Your task to perform on an android device: Set an alarm for 6pm Image 0: 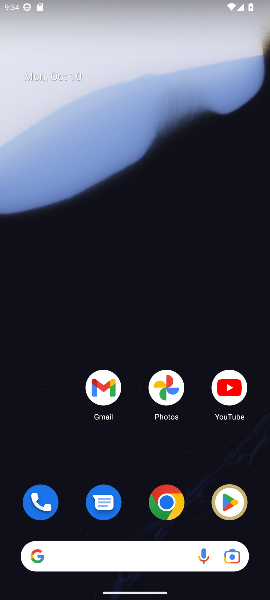
Step 0: click (166, 499)
Your task to perform on an android device: Set an alarm for 6pm Image 1: 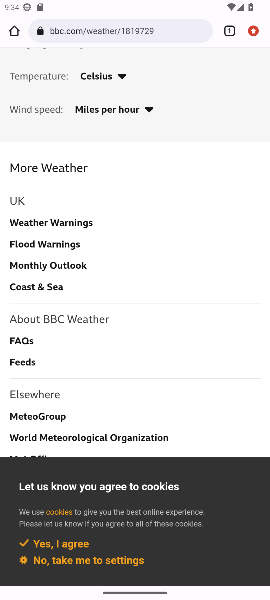
Step 1: press home button
Your task to perform on an android device: Set an alarm for 6pm Image 2: 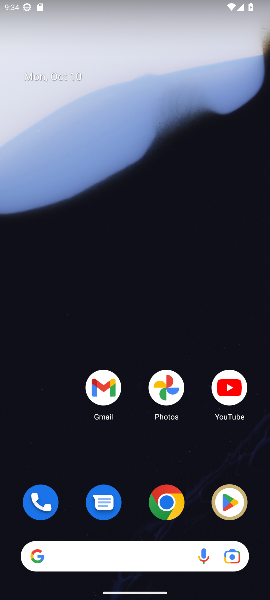
Step 2: drag from (142, 532) to (155, 44)
Your task to perform on an android device: Set an alarm for 6pm Image 3: 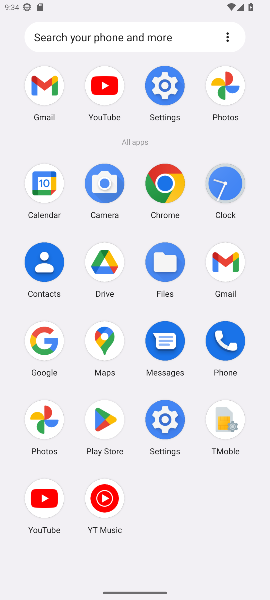
Step 3: click (235, 196)
Your task to perform on an android device: Set an alarm for 6pm Image 4: 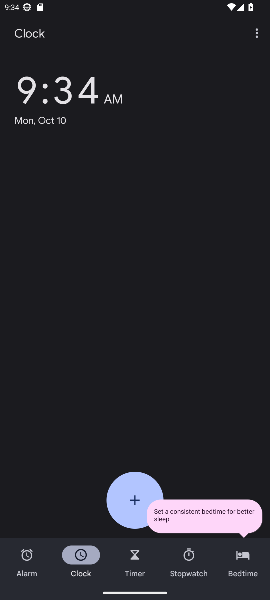
Step 4: click (21, 559)
Your task to perform on an android device: Set an alarm for 6pm Image 5: 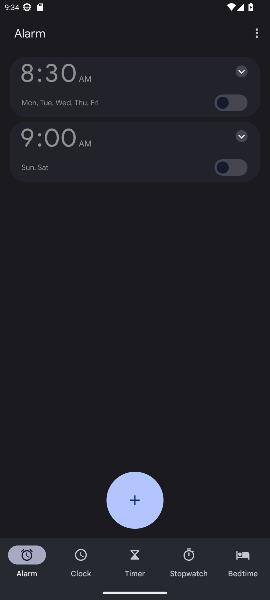
Step 5: click (131, 493)
Your task to perform on an android device: Set an alarm for 6pm Image 6: 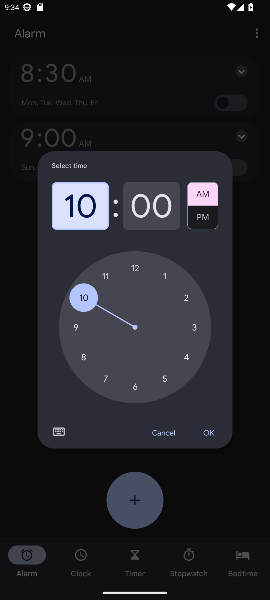
Step 6: click (198, 214)
Your task to perform on an android device: Set an alarm for 6pm Image 7: 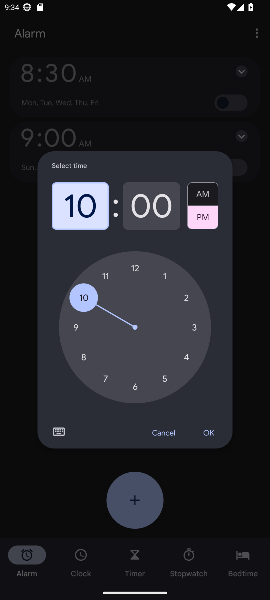
Step 7: click (138, 387)
Your task to perform on an android device: Set an alarm for 6pm Image 8: 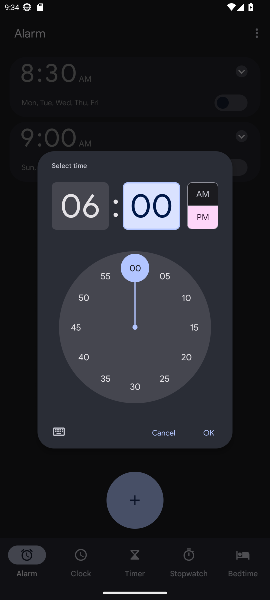
Step 8: click (209, 433)
Your task to perform on an android device: Set an alarm for 6pm Image 9: 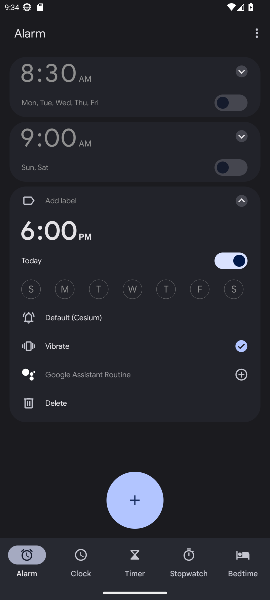
Step 9: click (221, 454)
Your task to perform on an android device: Set an alarm for 6pm Image 10: 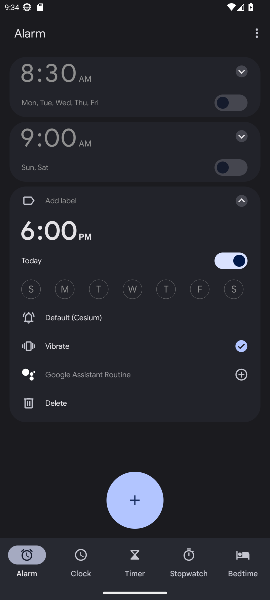
Step 10: click (77, 554)
Your task to perform on an android device: Set an alarm for 6pm Image 11: 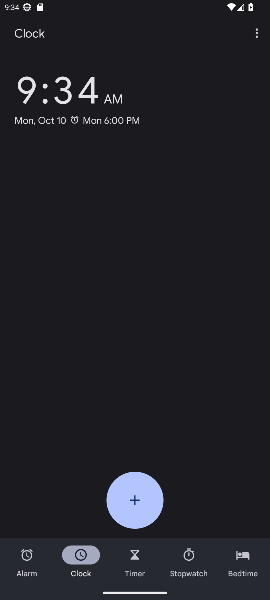
Step 11: click (134, 550)
Your task to perform on an android device: Set an alarm for 6pm Image 12: 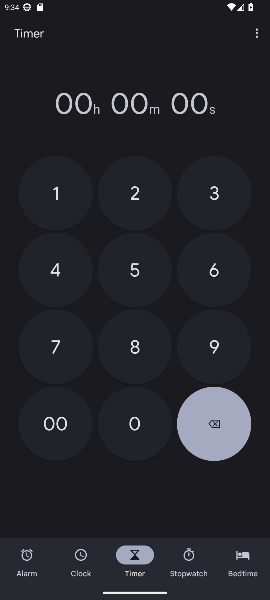
Step 12: click (177, 559)
Your task to perform on an android device: Set an alarm for 6pm Image 13: 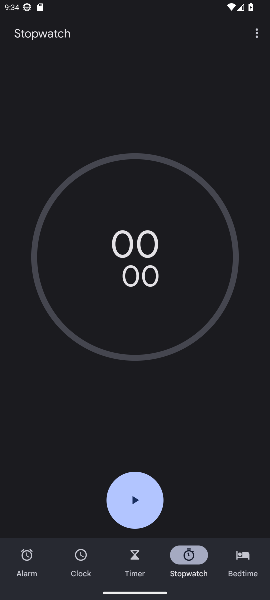
Step 13: click (238, 554)
Your task to perform on an android device: Set an alarm for 6pm Image 14: 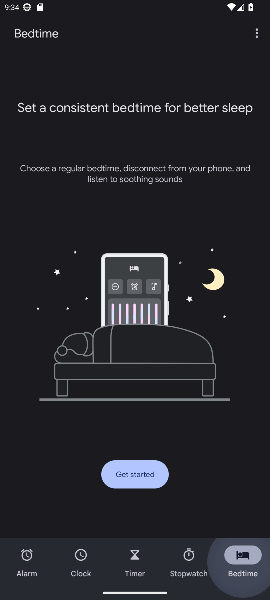
Step 14: click (27, 558)
Your task to perform on an android device: Set an alarm for 6pm Image 15: 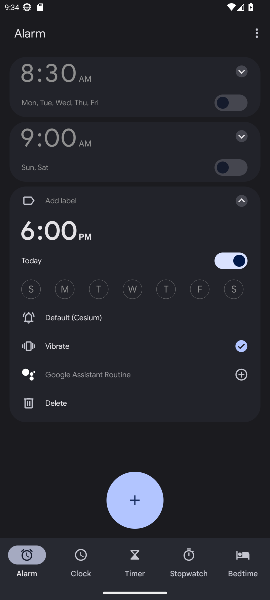
Step 15: click (221, 263)
Your task to perform on an android device: Set an alarm for 6pm Image 16: 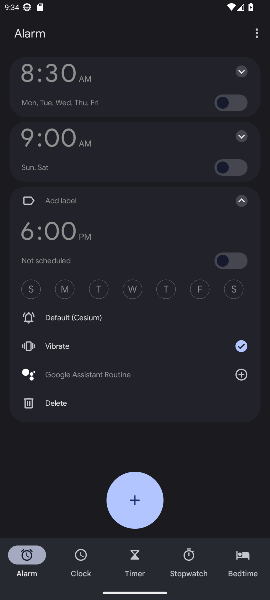
Step 16: click (231, 260)
Your task to perform on an android device: Set an alarm for 6pm Image 17: 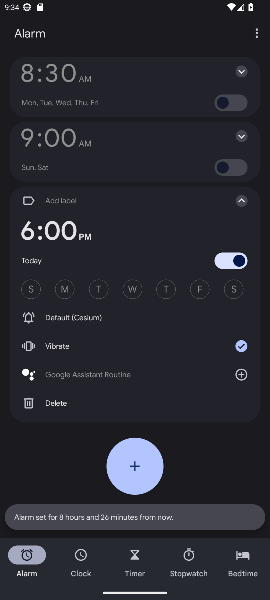
Step 17: click (32, 287)
Your task to perform on an android device: Set an alarm for 6pm Image 18: 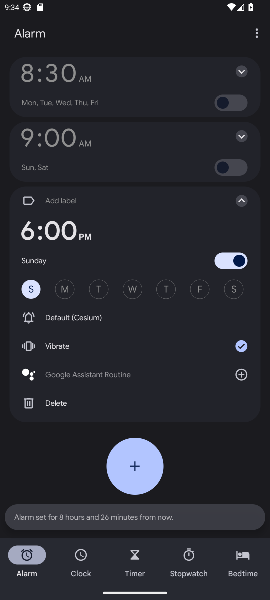
Step 18: click (65, 291)
Your task to perform on an android device: Set an alarm for 6pm Image 19: 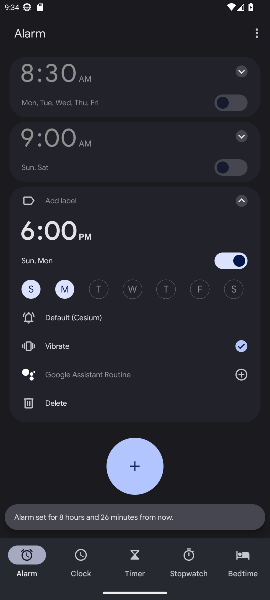
Step 19: click (97, 287)
Your task to perform on an android device: Set an alarm for 6pm Image 20: 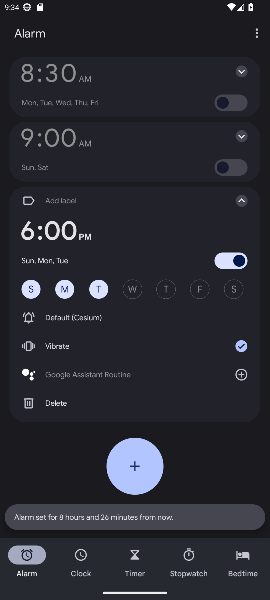
Step 20: click (137, 291)
Your task to perform on an android device: Set an alarm for 6pm Image 21: 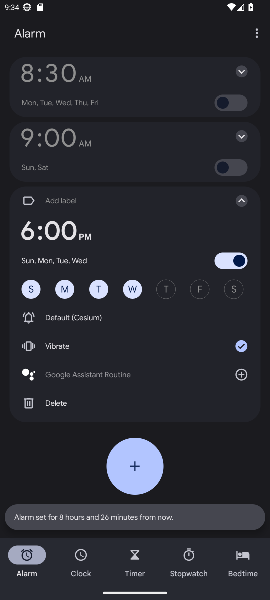
Step 21: click (174, 294)
Your task to perform on an android device: Set an alarm for 6pm Image 22: 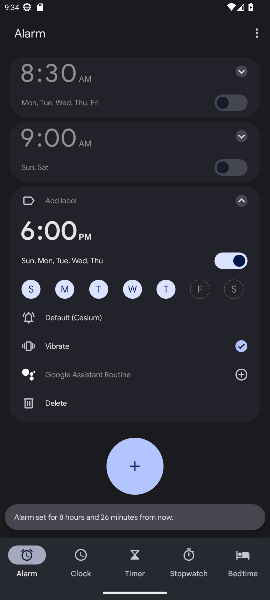
Step 22: click (195, 292)
Your task to perform on an android device: Set an alarm for 6pm Image 23: 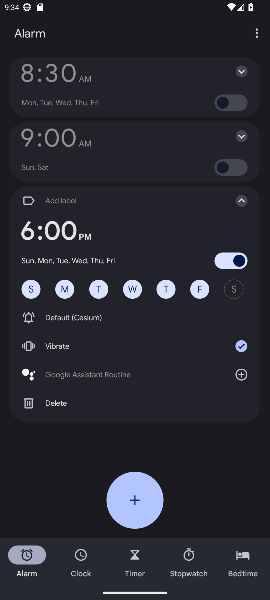
Step 23: click (195, 292)
Your task to perform on an android device: Set an alarm for 6pm Image 24: 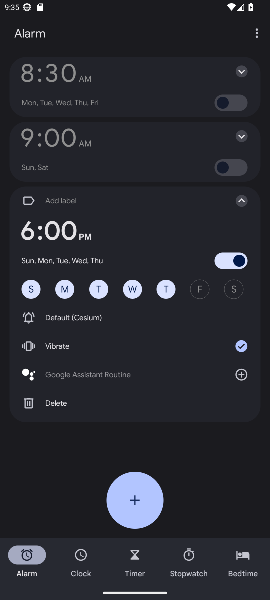
Step 24: click (242, 292)
Your task to perform on an android device: Set an alarm for 6pm Image 25: 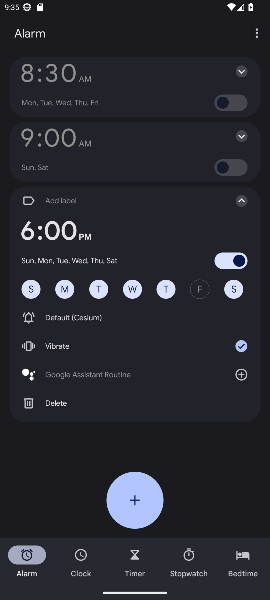
Step 25: click (206, 290)
Your task to perform on an android device: Set an alarm for 6pm Image 26: 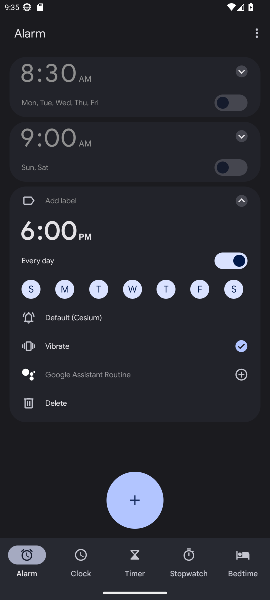
Step 26: click (244, 372)
Your task to perform on an android device: Set an alarm for 6pm Image 27: 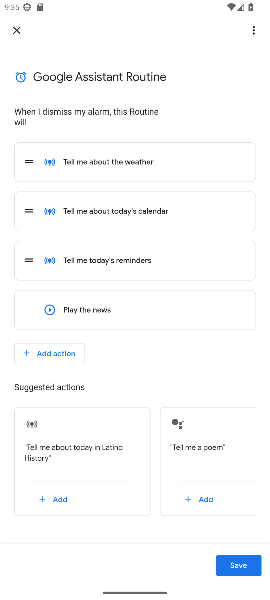
Step 27: click (249, 564)
Your task to perform on an android device: Set an alarm for 6pm Image 28: 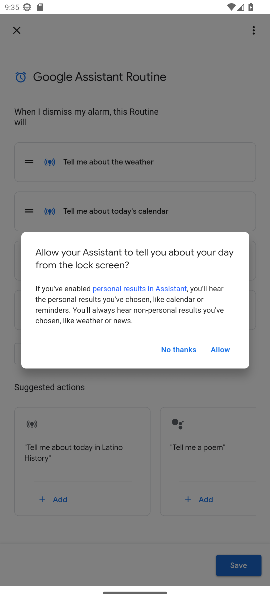
Step 28: click (218, 347)
Your task to perform on an android device: Set an alarm for 6pm Image 29: 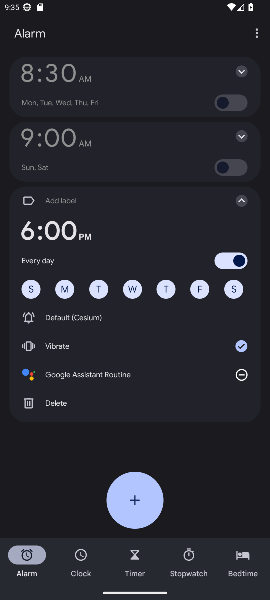
Step 29: click (239, 379)
Your task to perform on an android device: Set an alarm for 6pm Image 30: 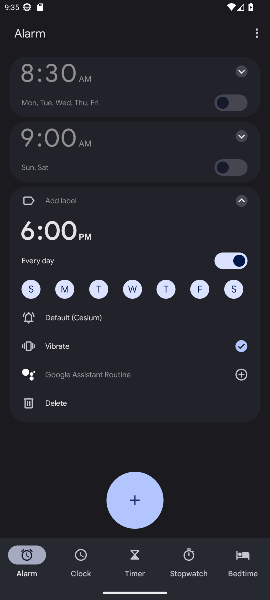
Step 30: drag from (211, 475) to (201, 175)
Your task to perform on an android device: Set an alarm for 6pm Image 31: 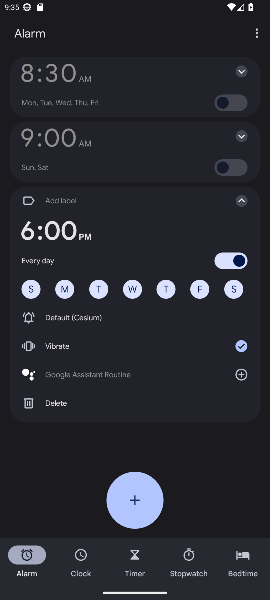
Step 31: drag from (211, 410) to (182, 151)
Your task to perform on an android device: Set an alarm for 6pm Image 32: 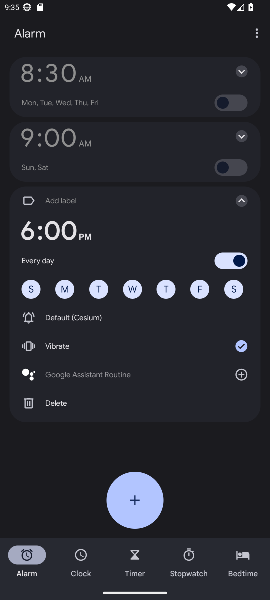
Step 32: click (240, 207)
Your task to perform on an android device: Set an alarm for 6pm Image 33: 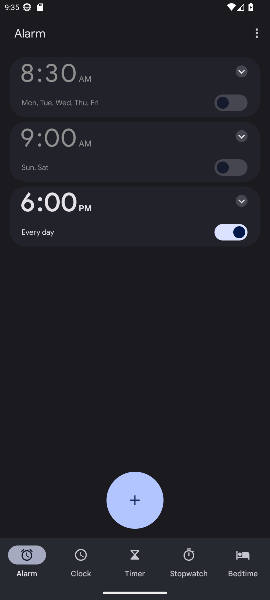
Step 33: click (240, 206)
Your task to perform on an android device: Set an alarm for 6pm Image 34: 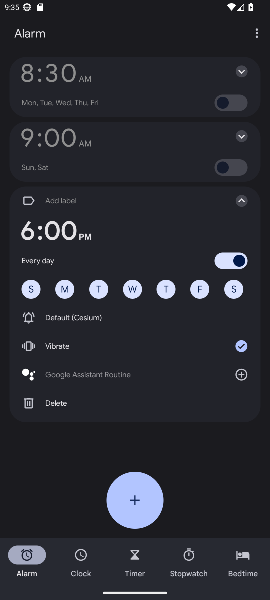
Step 34: click (240, 206)
Your task to perform on an android device: Set an alarm for 6pm Image 35: 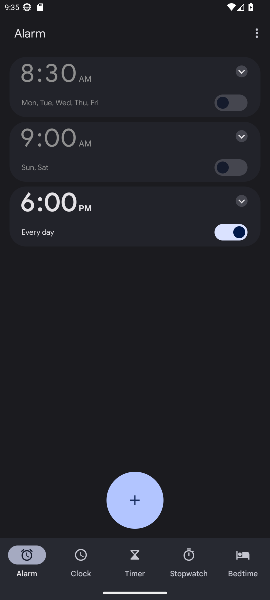
Step 35: click (240, 206)
Your task to perform on an android device: Set an alarm for 6pm Image 36: 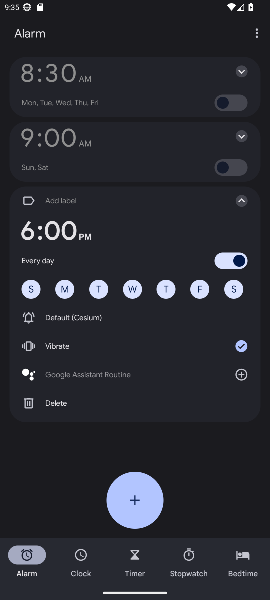
Step 36: click (240, 206)
Your task to perform on an android device: Set an alarm for 6pm Image 37: 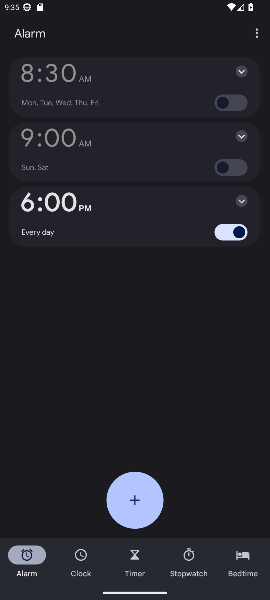
Step 37: task complete